Your task to perform on an android device: turn off translation in the chrome app Image 0: 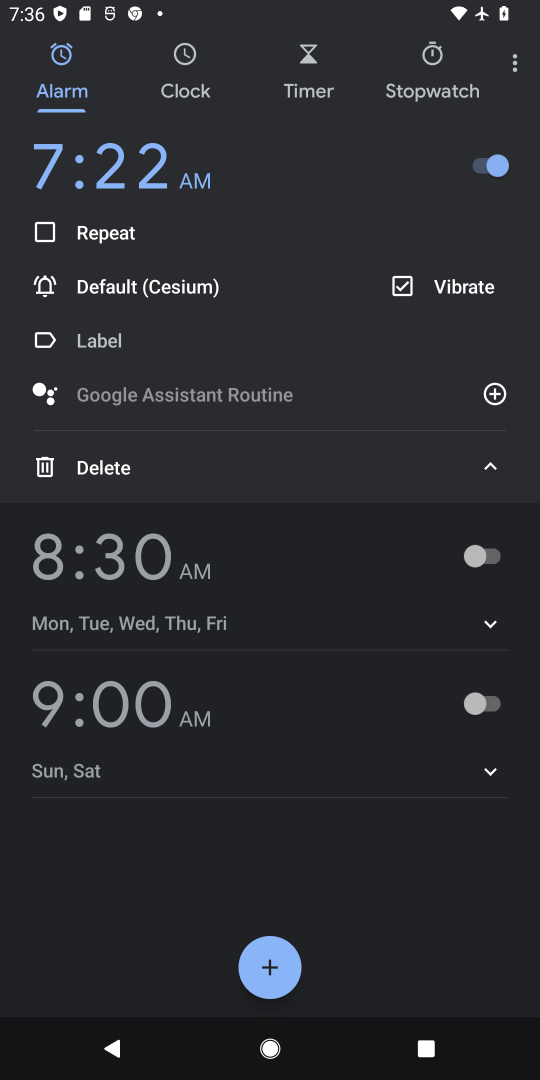
Step 0: press home button
Your task to perform on an android device: turn off translation in the chrome app Image 1: 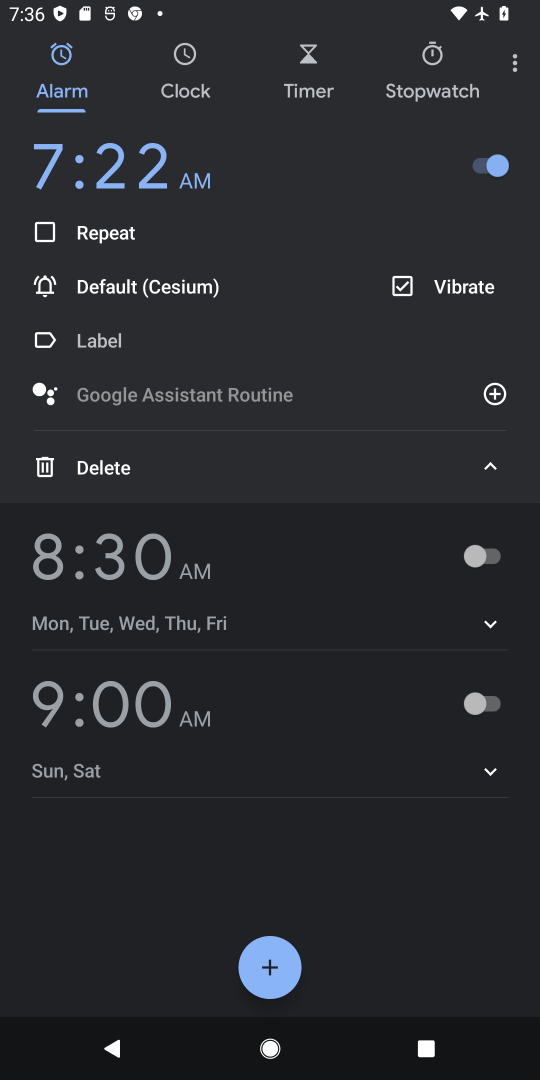
Step 1: press home button
Your task to perform on an android device: turn off translation in the chrome app Image 2: 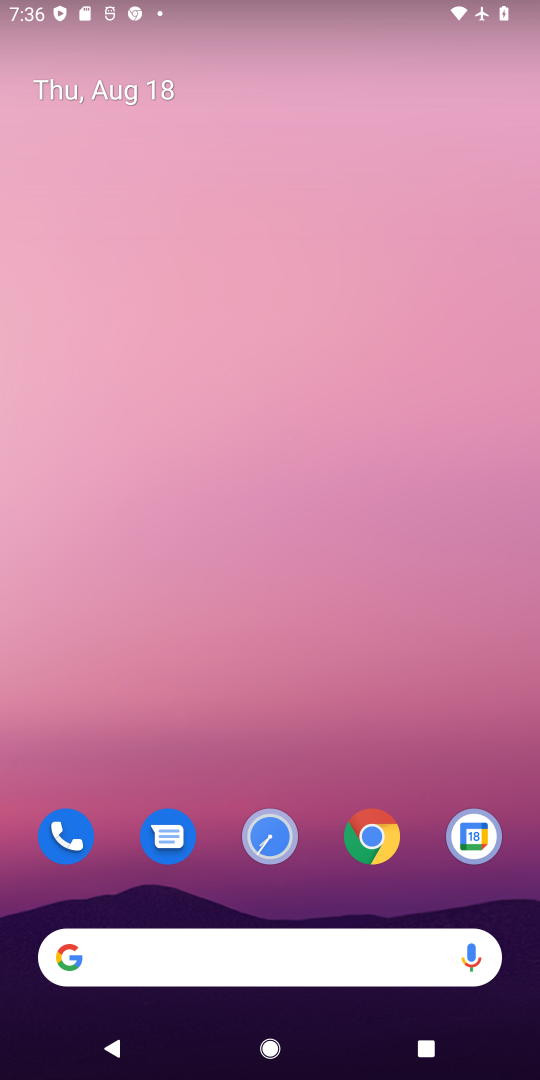
Step 2: drag from (317, 717) to (307, 72)
Your task to perform on an android device: turn off translation in the chrome app Image 3: 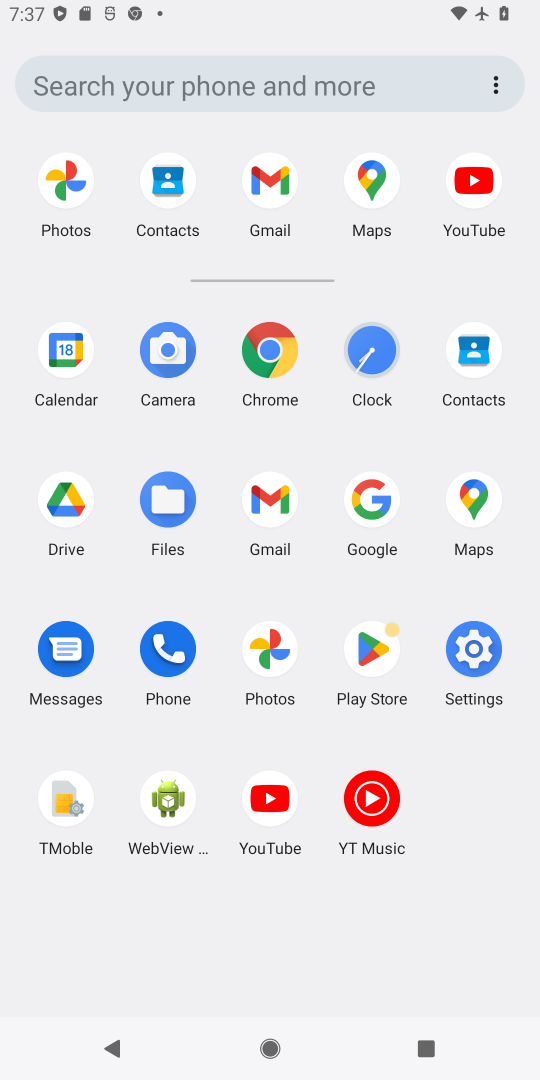
Step 3: click (273, 356)
Your task to perform on an android device: turn off translation in the chrome app Image 4: 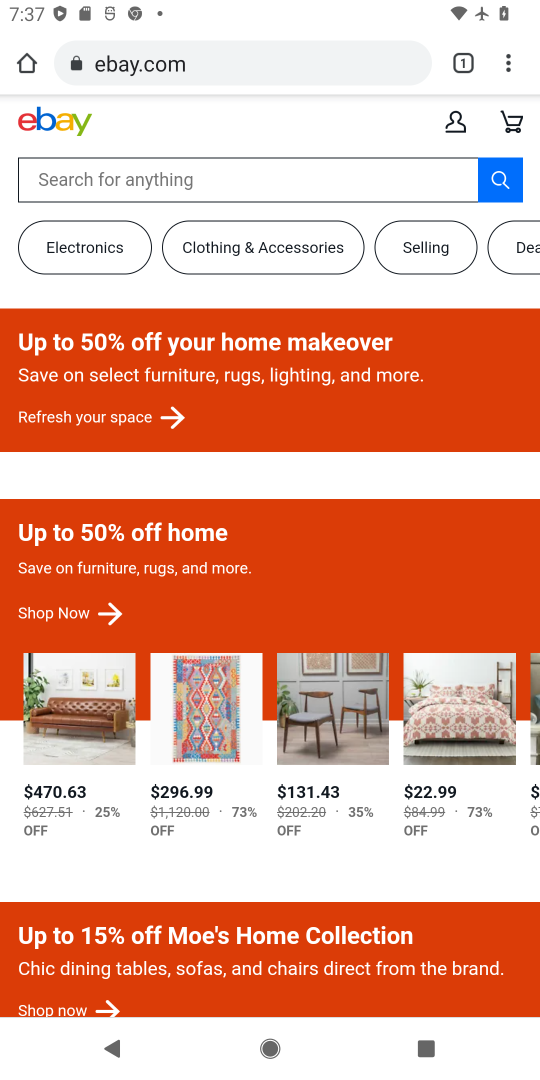
Step 4: drag from (499, 89) to (326, 811)
Your task to perform on an android device: turn off translation in the chrome app Image 5: 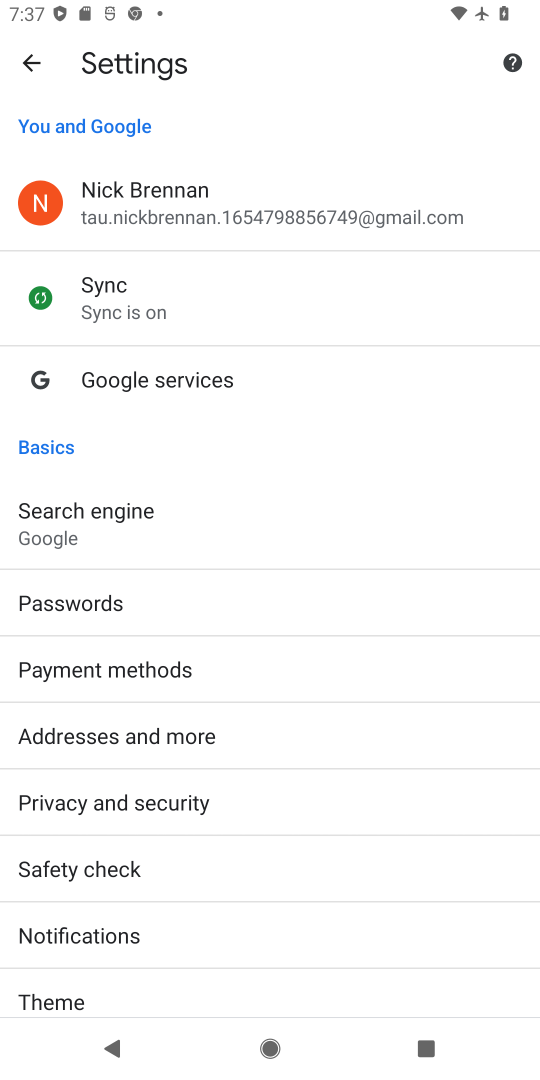
Step 5: drag from (284, 846) to (286, 81)
Your task to perform on an android device: turn off translation in the chrome app Image 6: 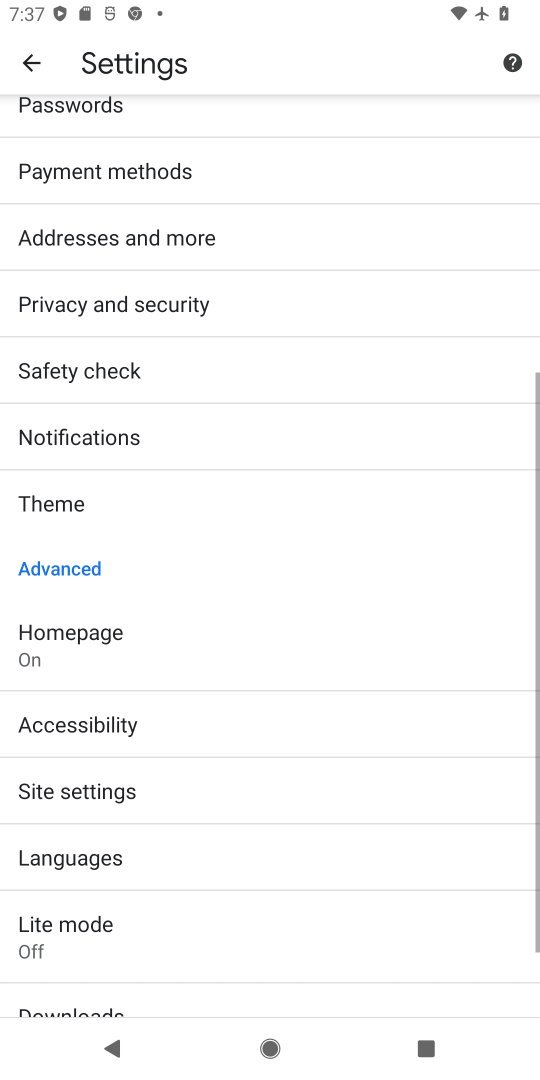
Step 6: click (105, 847)
Your task to perform on an android device: turn off translation in the chrome app Image 7: 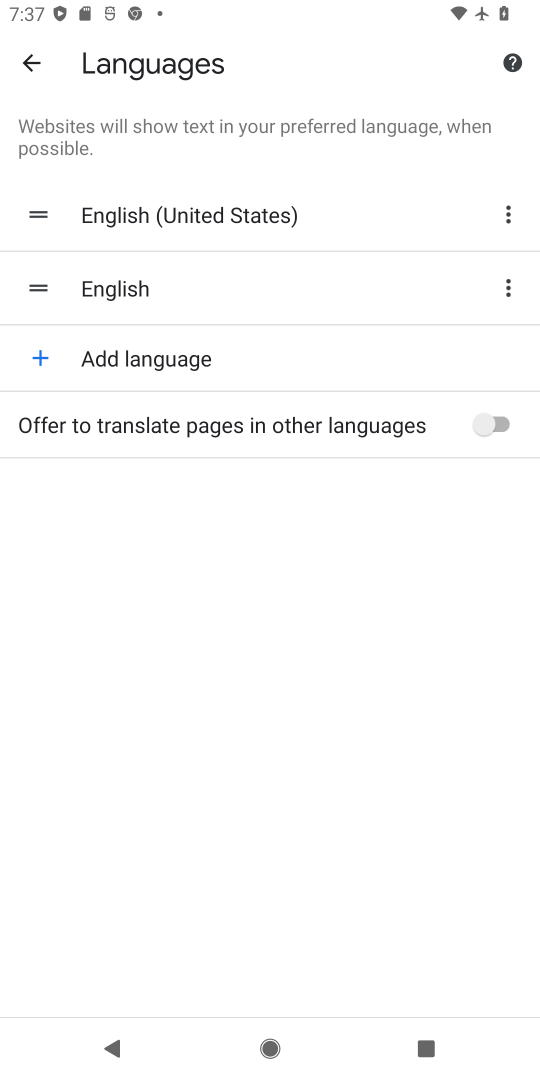
Step 7: task complete